Your task to perform on an android device: Go to battery settings Image 0: 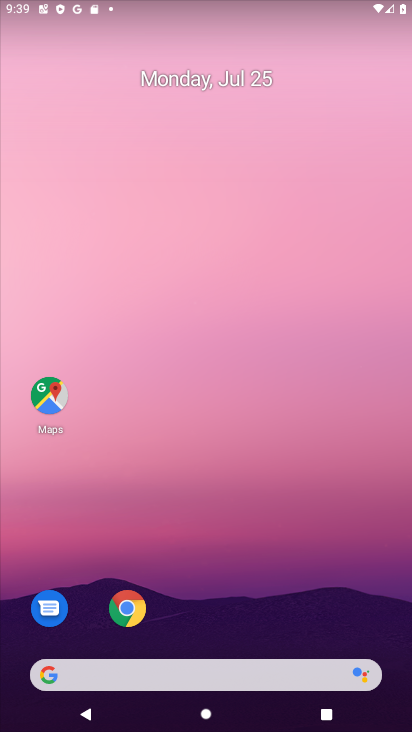
Step 0: drag from (203, 683) to (233, 220)
Your task to perform on an android device: Go to battery settings Image 1: 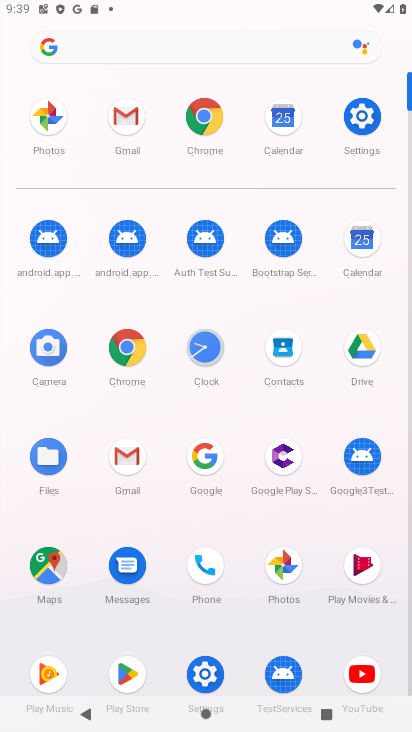
Step 1: click (354, 101)
Your task to perform on an android device: Go to battery settings Image 2: 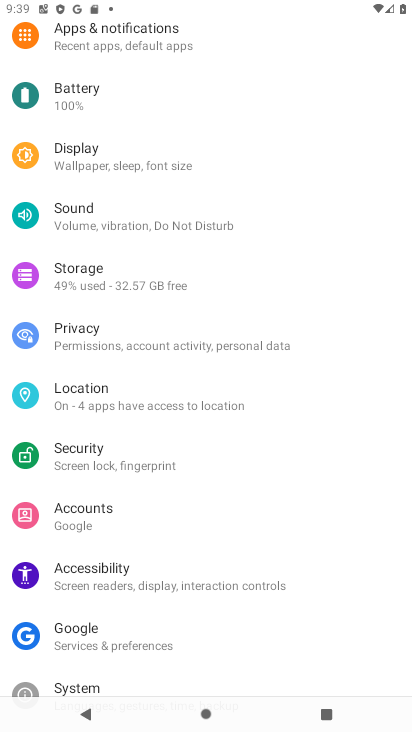
Step 2: click (65, 85)
Your task to perform on an android device: Go to battery settings Image 3: 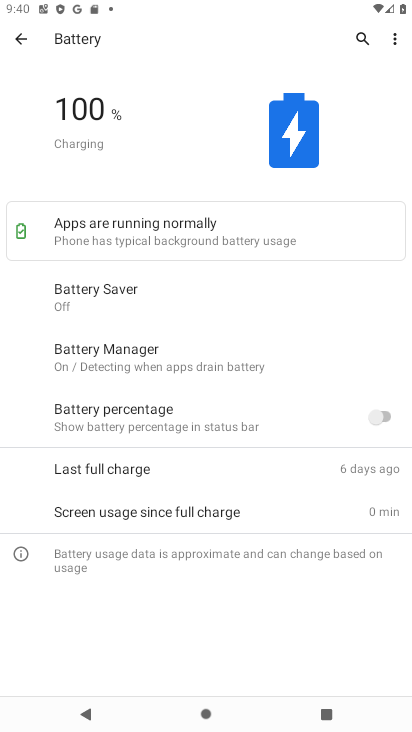
Step 3: task complete